Your task to perform on an android device: Open my contact list Image 0: 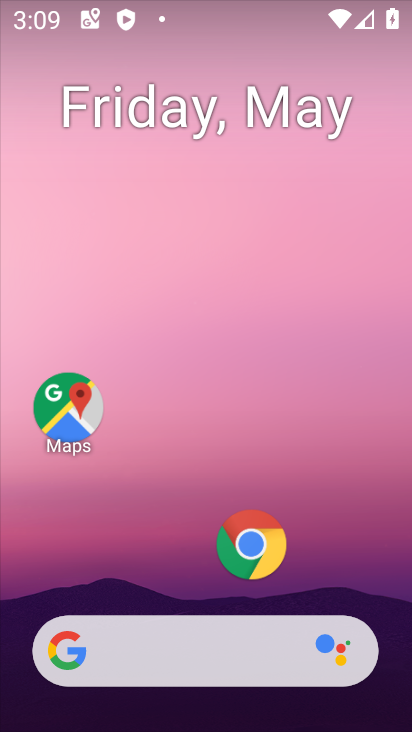
Step 0: drag from (182, 604) to (188, 230)
Your task to perform on an android device: Open my contact list Image 1: 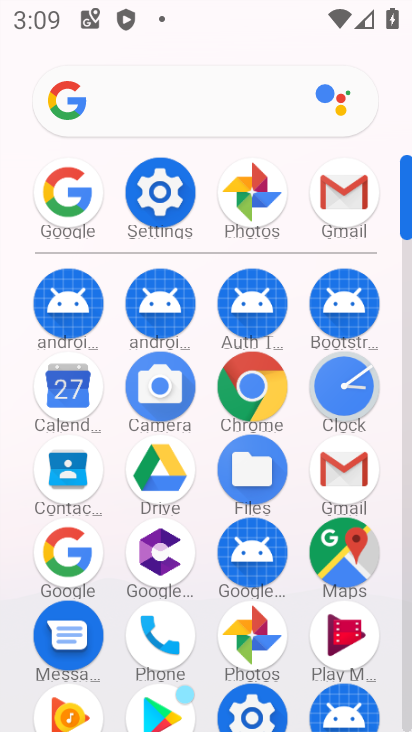
Step 1: drag from (199, 547) to (223, 346)
Your task to perform on an android device: Open my contact list Image 2: 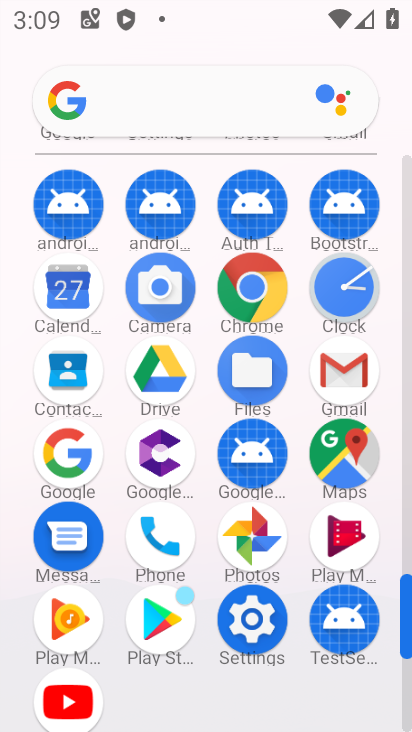
Step 2: drag from (219, 280) to (198, 552)
Your task to perform on an android device: Open my contact list Image 3: 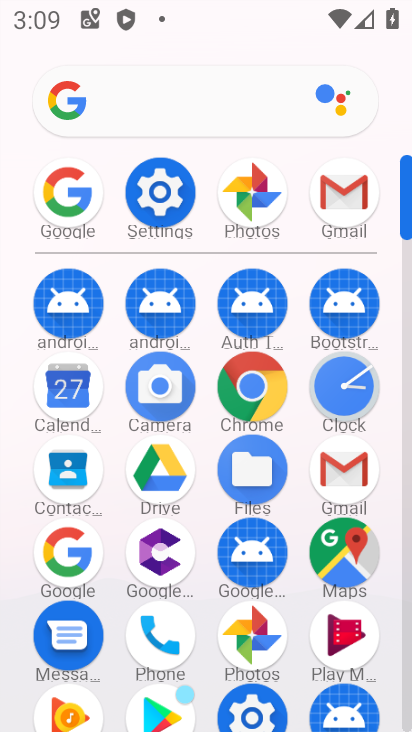
Step 3: drag from (274, 300) to (285, 346)
Your task to perform on an android device: Open my contact list Image 4: 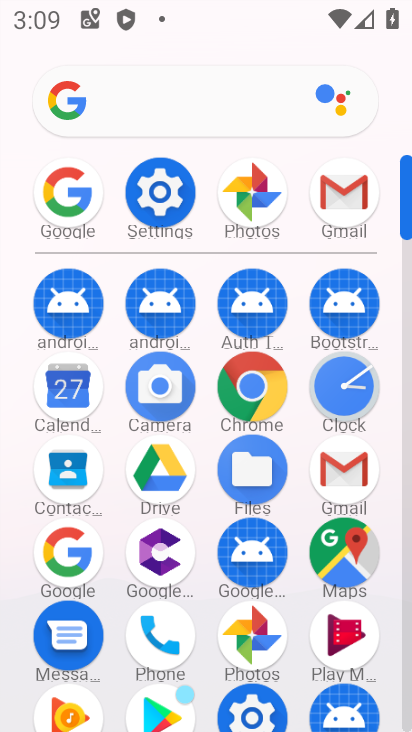
Step 4: click (56, 468)
Your task to perform on an android device: Open my contact list Image 5: 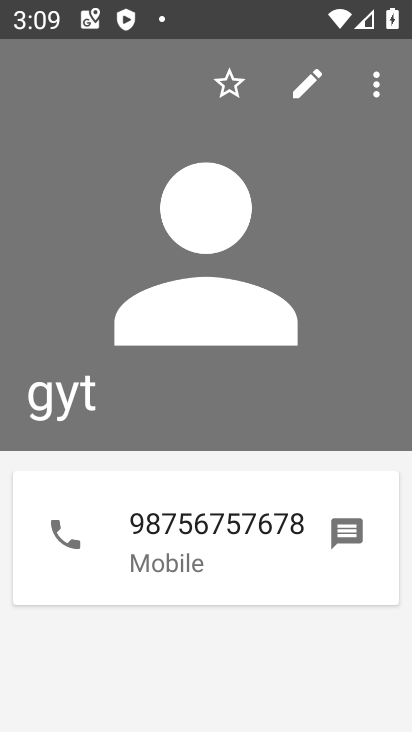
Step 5: task complete